Your task to perform on an android device: Open Google Image 0: 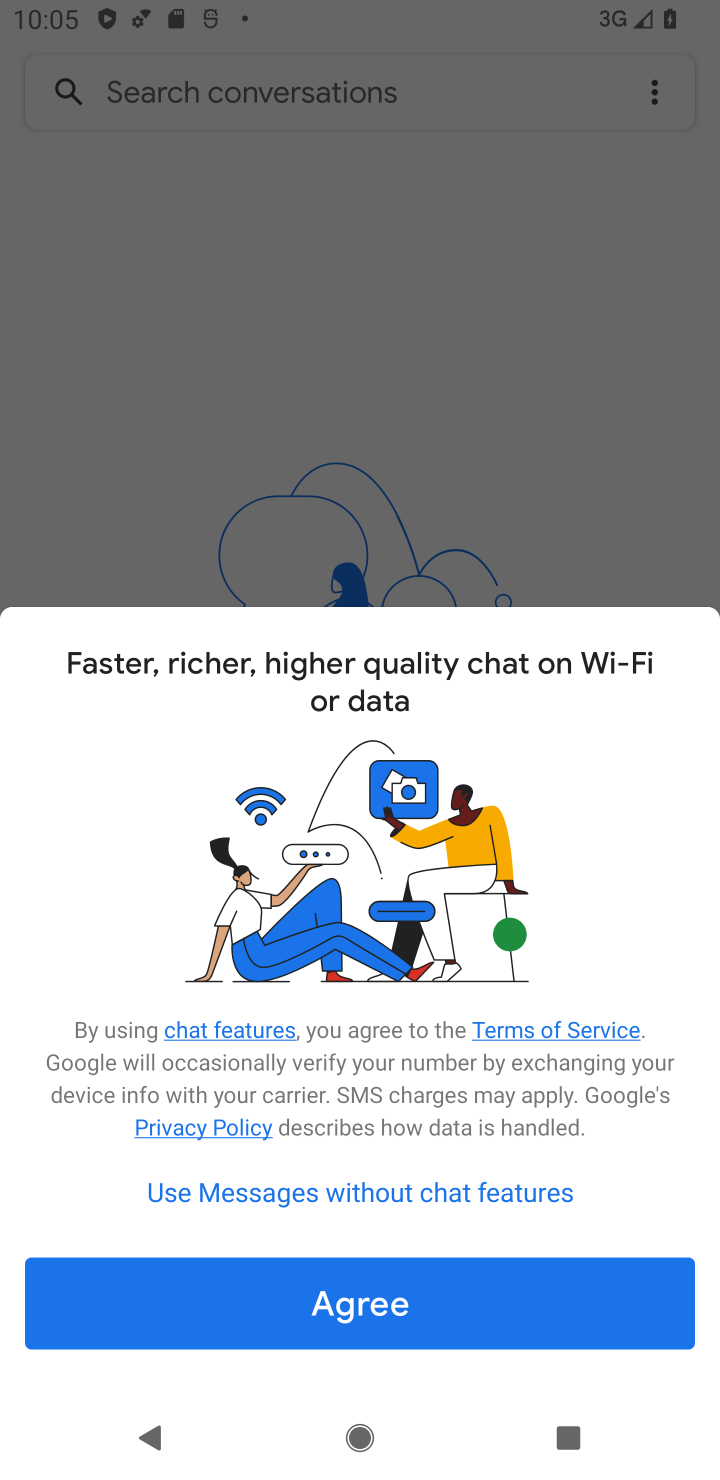
Step 0: press home button
Your task to perform on an android device: Open Google Image 1: 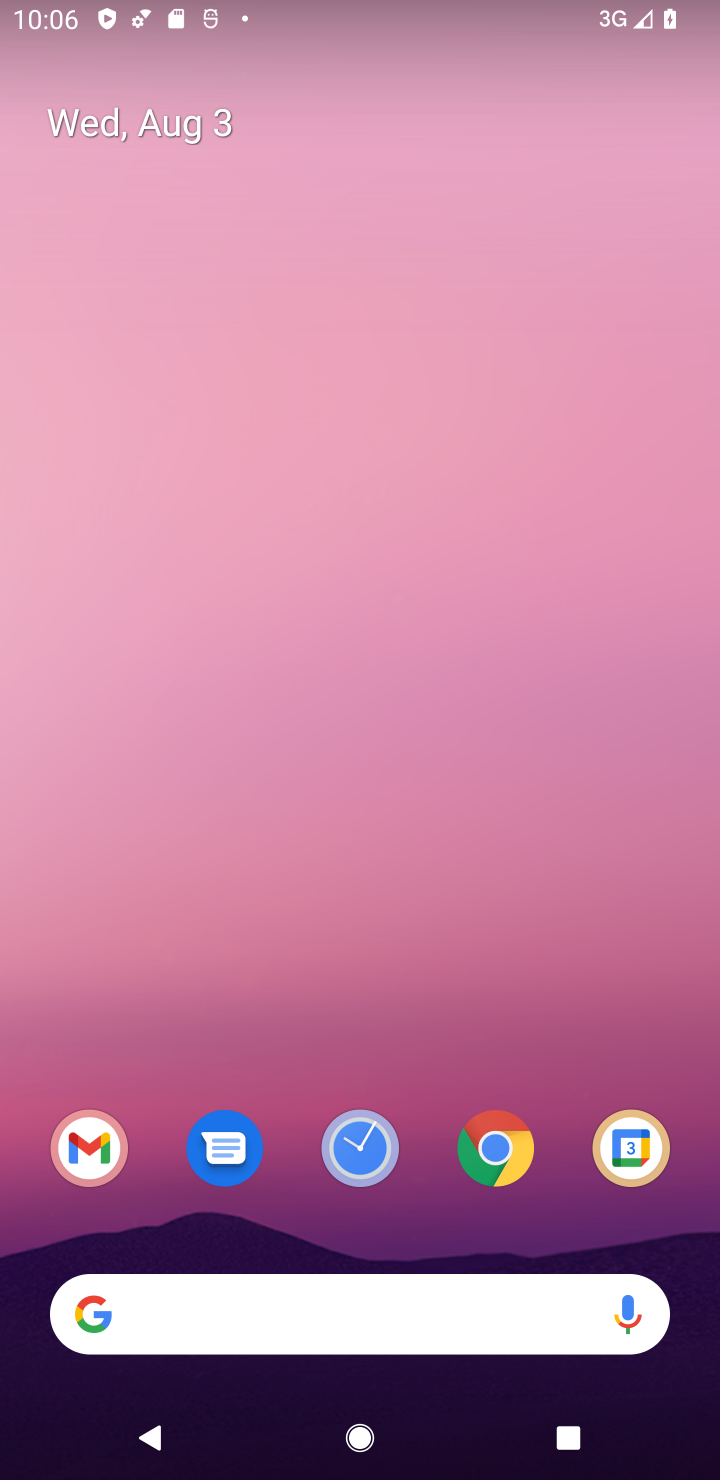
Step 1: click (506, 1174)
Your task to perform on an android device: Open Google Image 2: 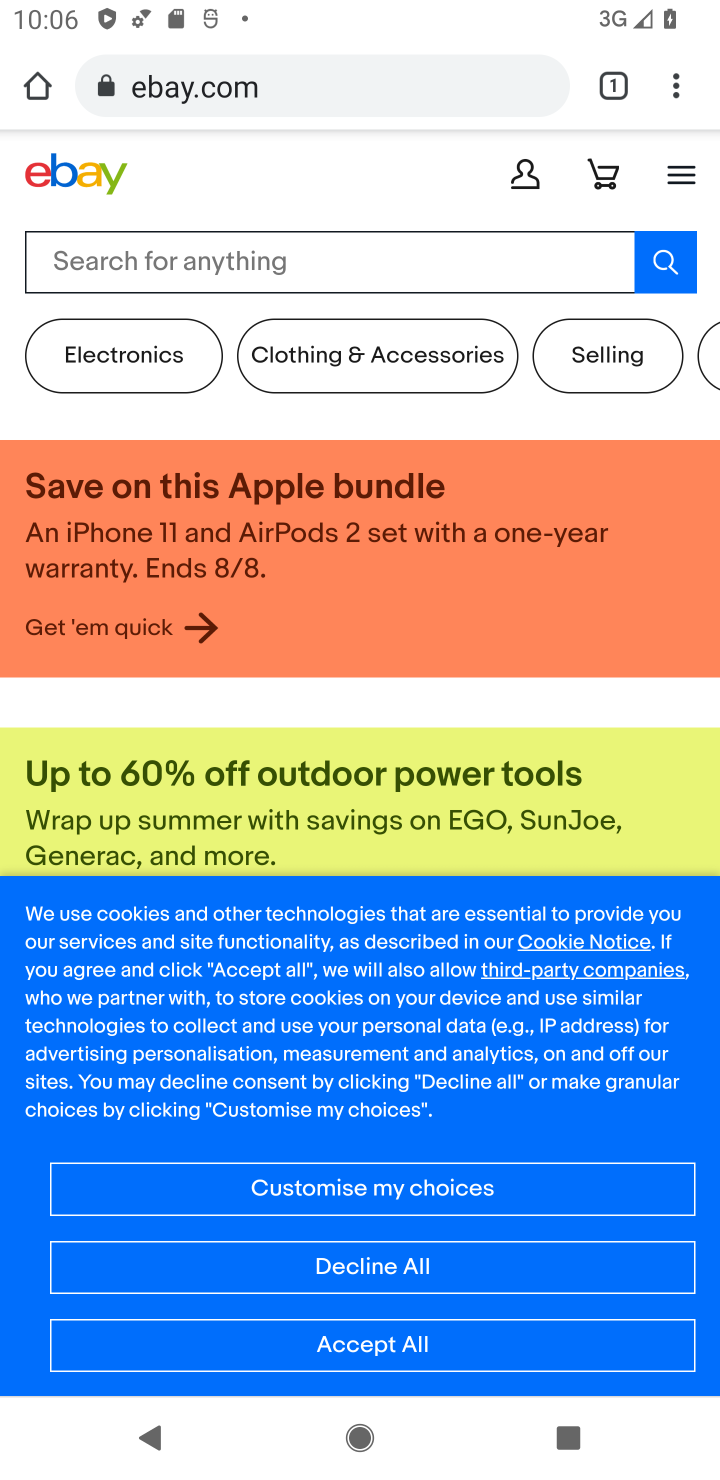
Step 2: click (606, 92)
Your task to perform on an android device: Open Google Image 3: 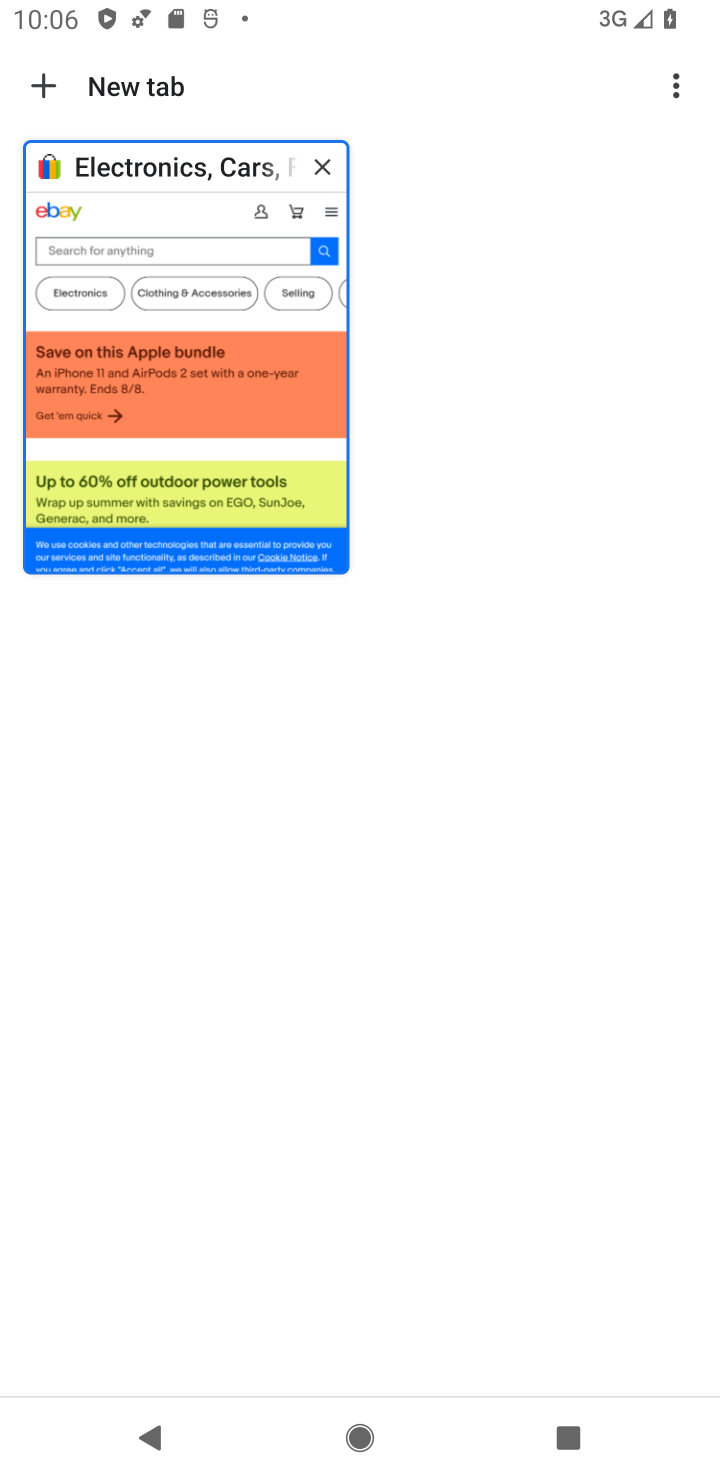
Step 3: click (41, 81)
Your task to perform on an android device: Open Google Image 4: 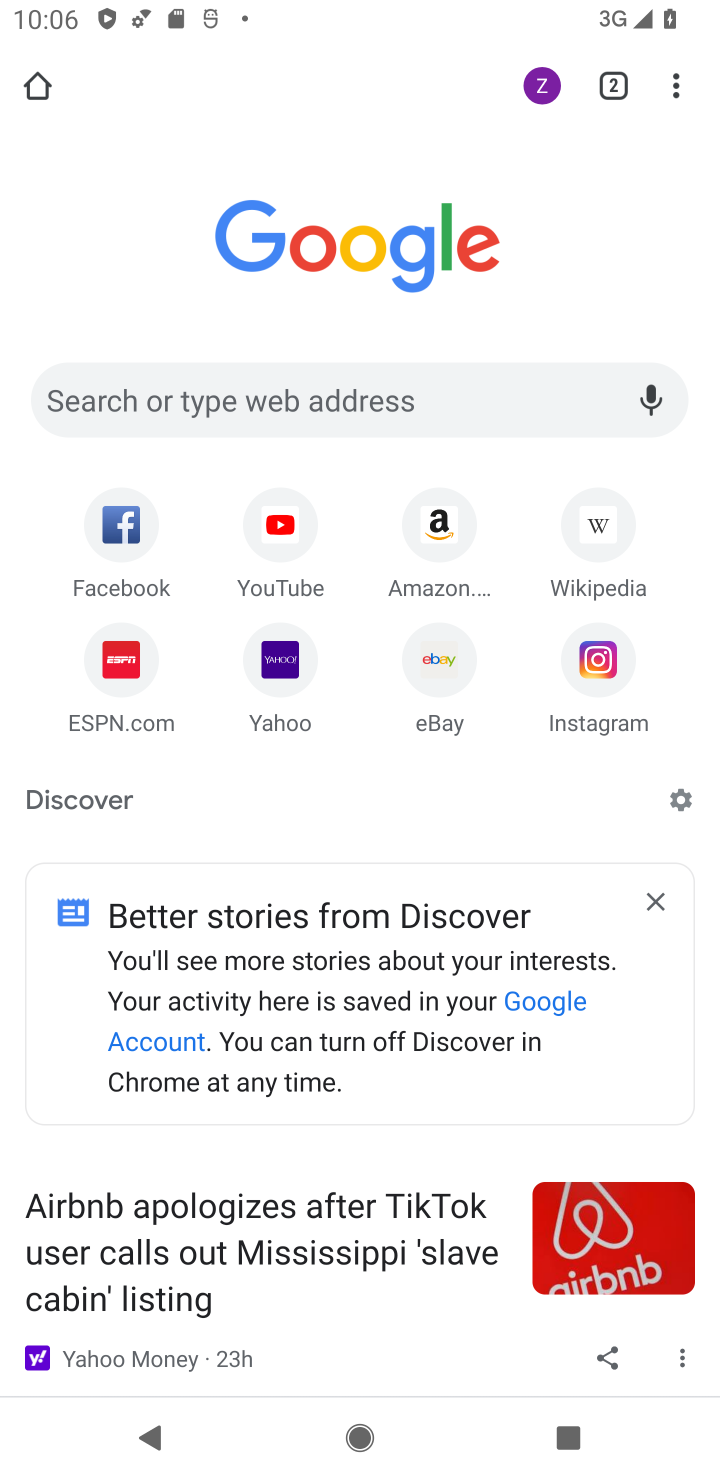
Step 4: press home button
Your task to perform on an android device: Open Google Image 5: 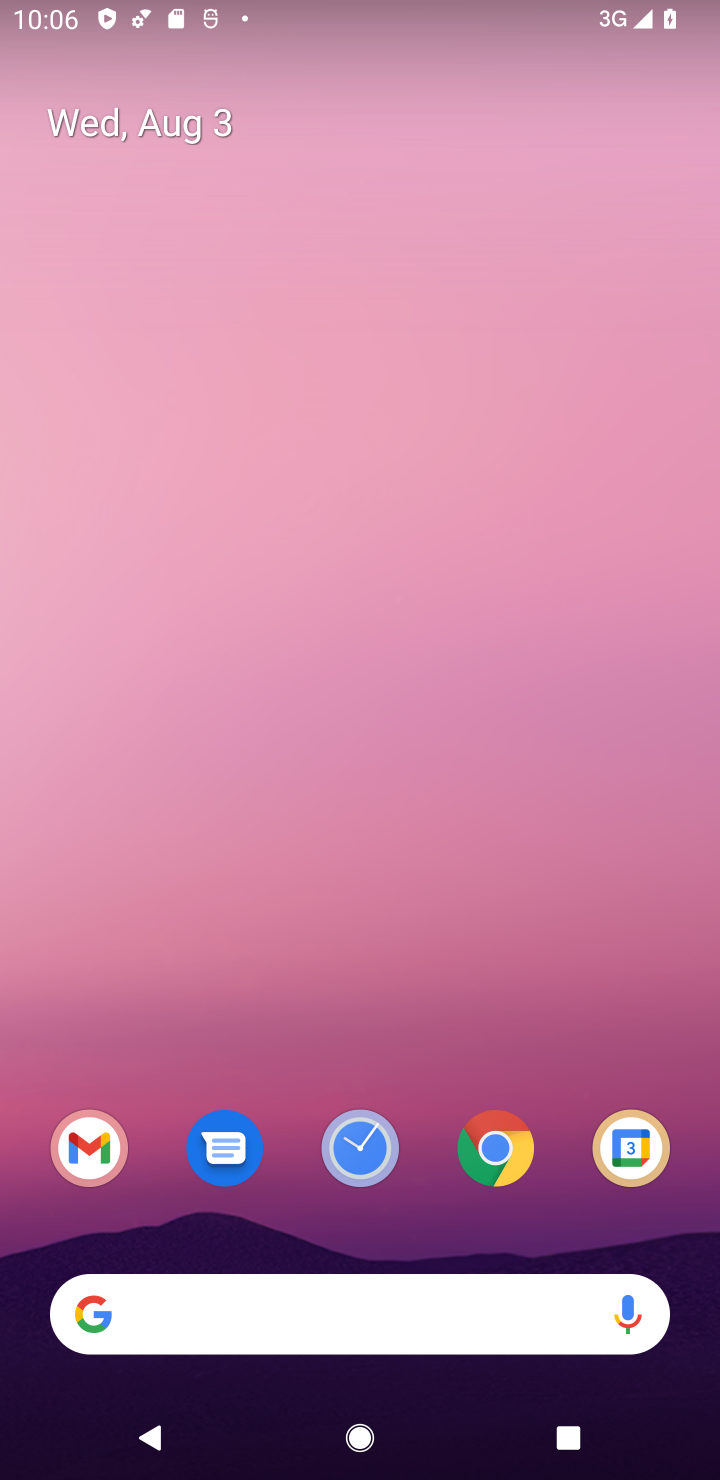
Step 5: click (438, 1316)
Your task to perform on an android device: Open Google Image 6: 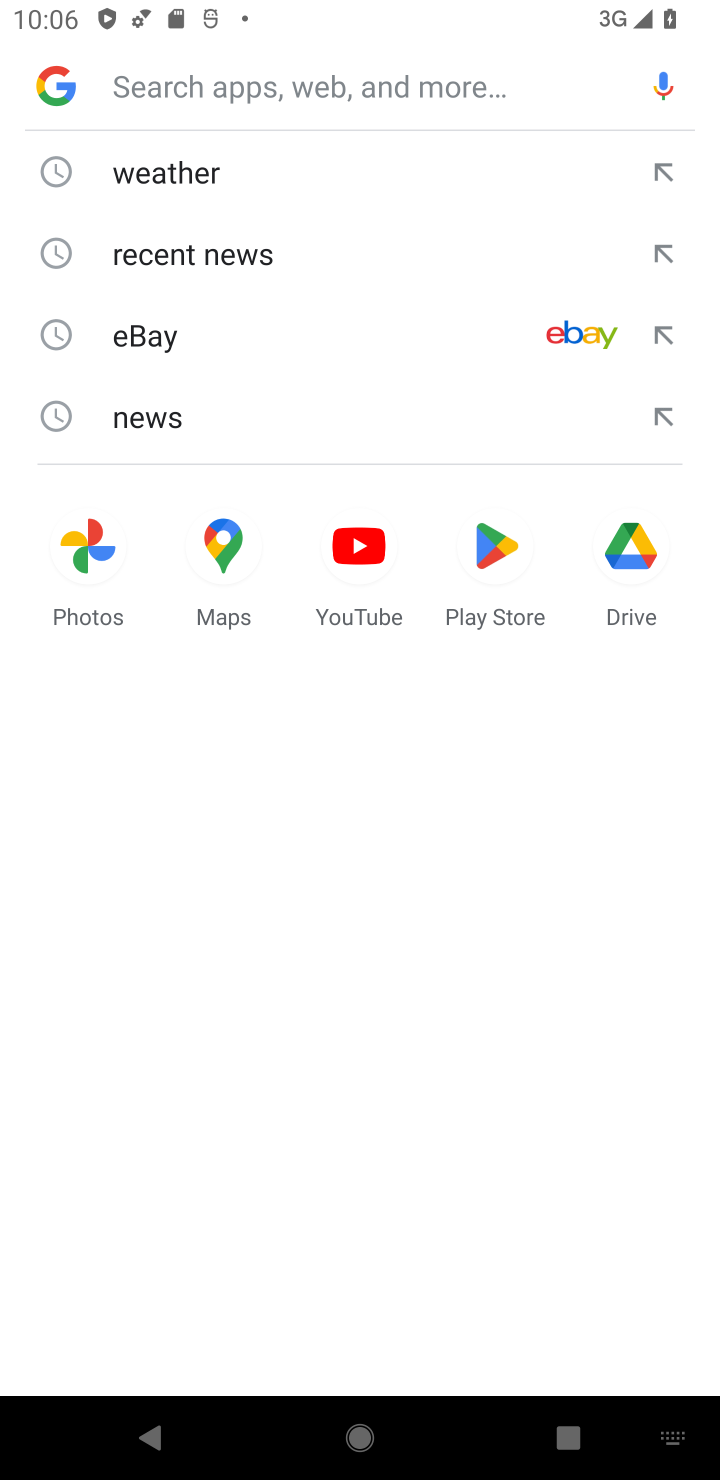
Step 6: task complete